Your task to perform on an android device: change keyboard looks Image 0: 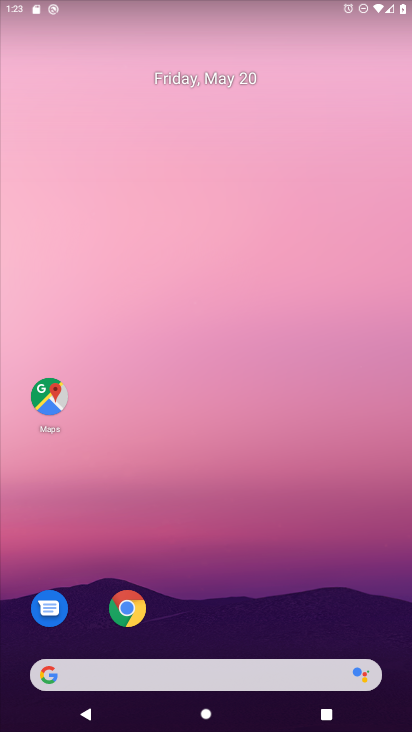
Step 0: press home button
Your task to perform on an android device: change keyboard looks Image 1: 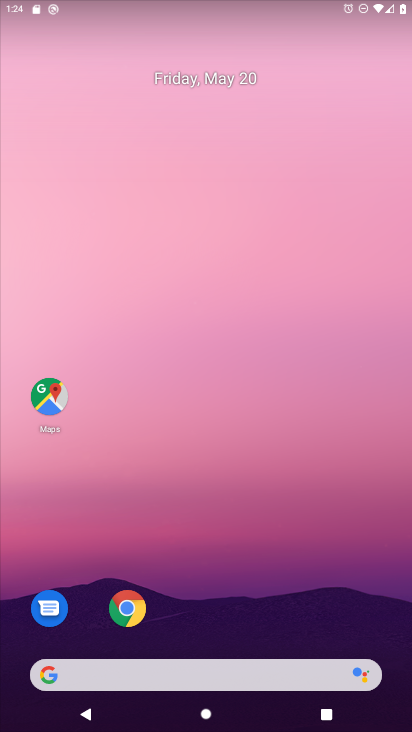
Step 1: drag from (316, 642) to (198, 68)
Your task to perform on an android device: change keyboard looks Image 2: 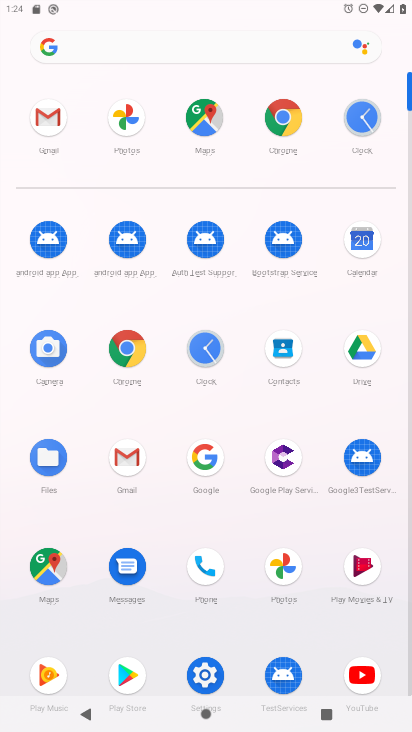
Step 2: click (205, 668)
Your task to perform on an android device: change keyboard looks Image 3: 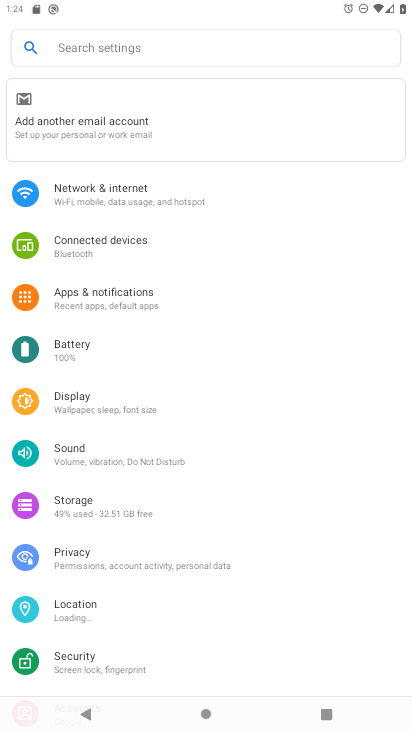
Step 3: drag from (203, 472) to (205, 136)
Your task to perform on an android device: change keyboard looks Image 4: 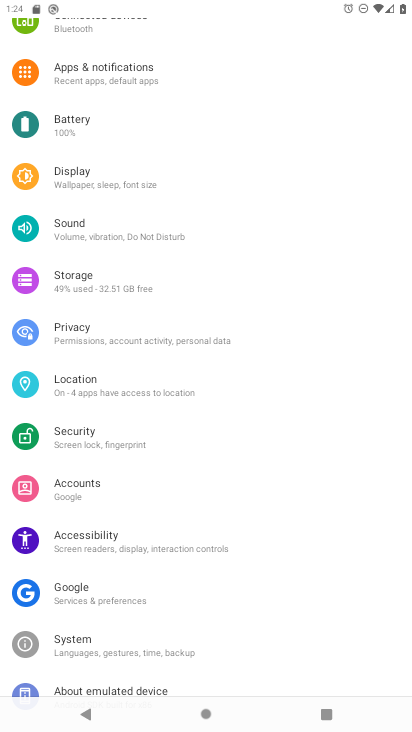
Step 4: drag from (159, 510) to (154, 412)
Your task to perform on an android device: change keyboard looks Image 5: 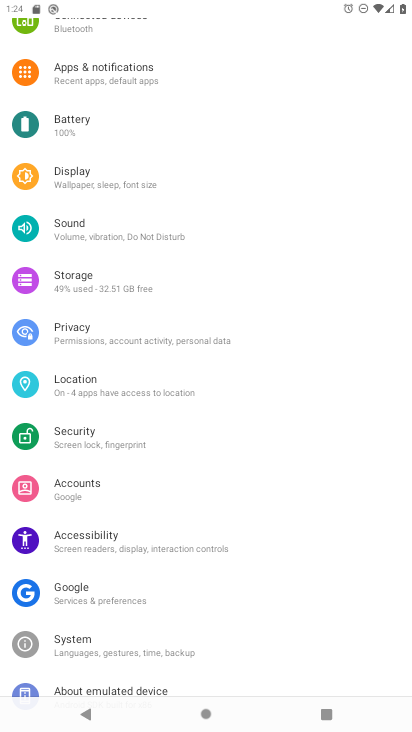
Step 5: drag from (164, 572) to (118, 144)
Your task to perform on an android device: change keyboard looks Image 6: 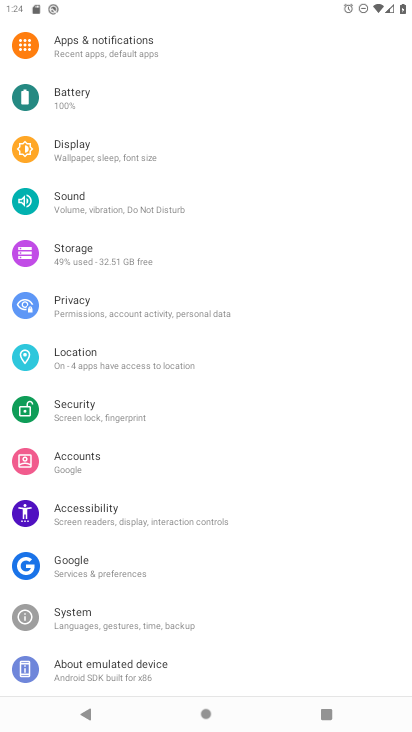
Step 6: click (99, 623)
Your task to perform on an android device: change keyboard looks Image 7: 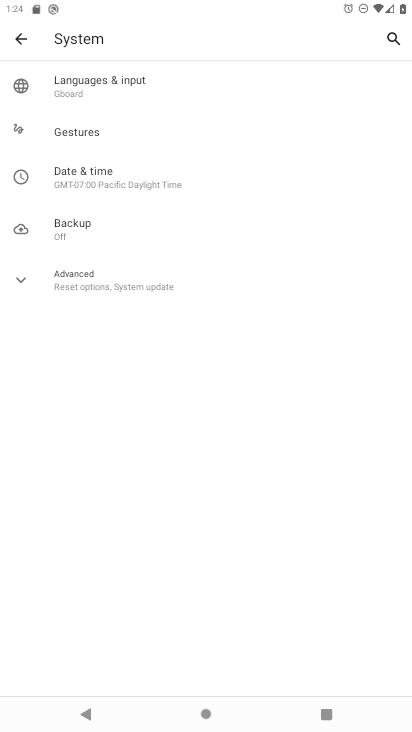
Step 7: click (61, 76)
Your task to perform on an android device: change keyboard looks Image 8: 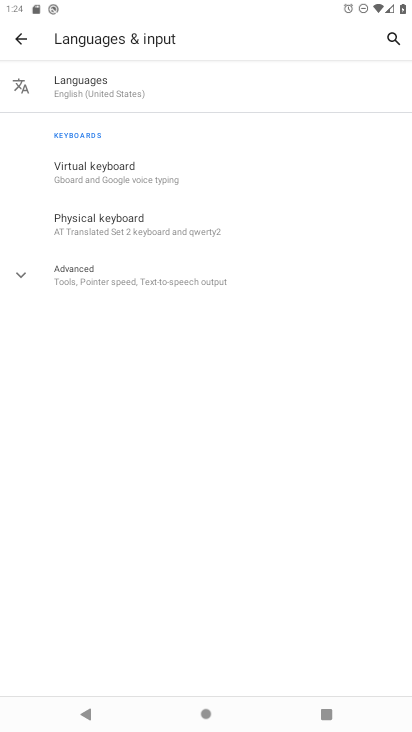
Step 8: click (92, 175)
Your task to perform on an android device: change keyboard looks Image 9: 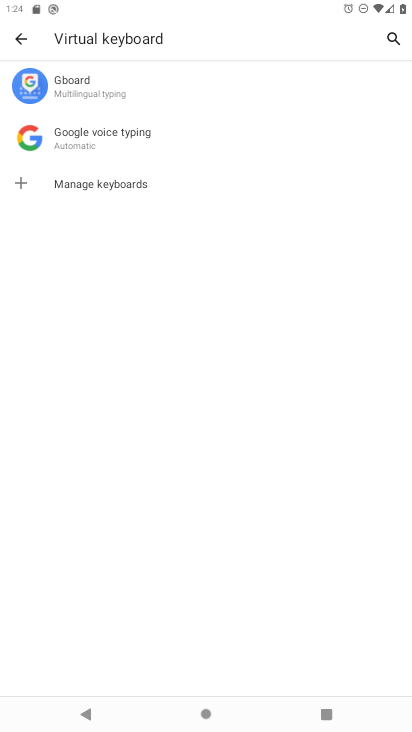
Step 9: click (74, 69)
Your task to perform on an android device: change keyboard looks Image 10: 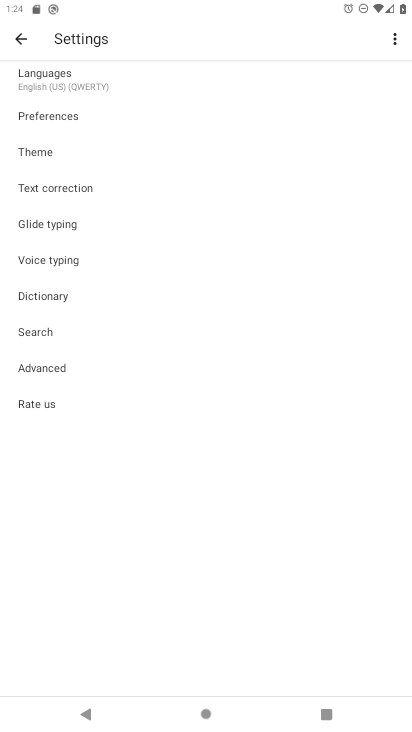
Step 10: click (71, 143)
Your task to perform on an android device: change keyboard looks Image 11: 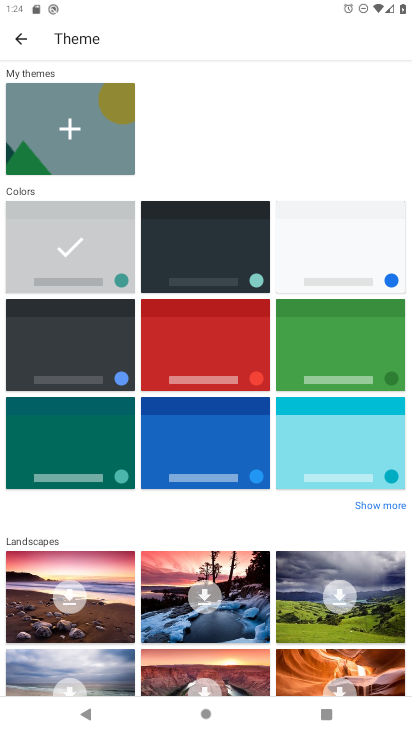
Step 11: click (106, 363)
Your task to perform on an android device: change keyboard looks Image 12: 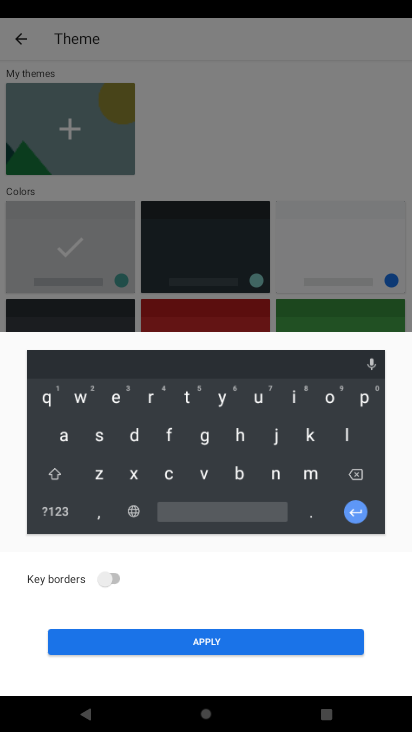
Step 12: click (108, 579)
Your task to perform on an android device: change keyboard looks Image 13: 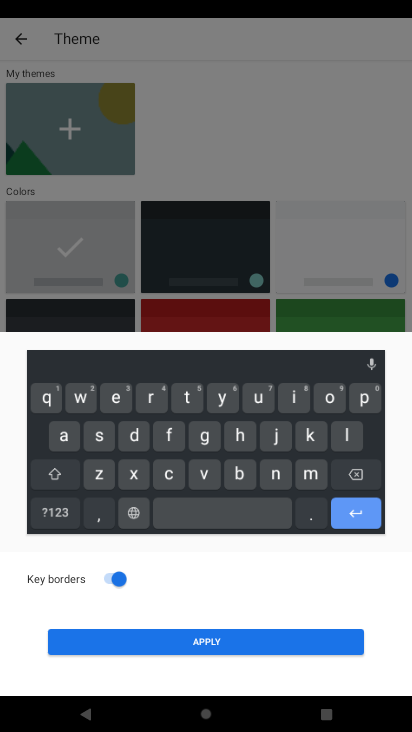
Step 13: click (138, 649)
Your task to perform on an android device: change keyboard looks Image 14: 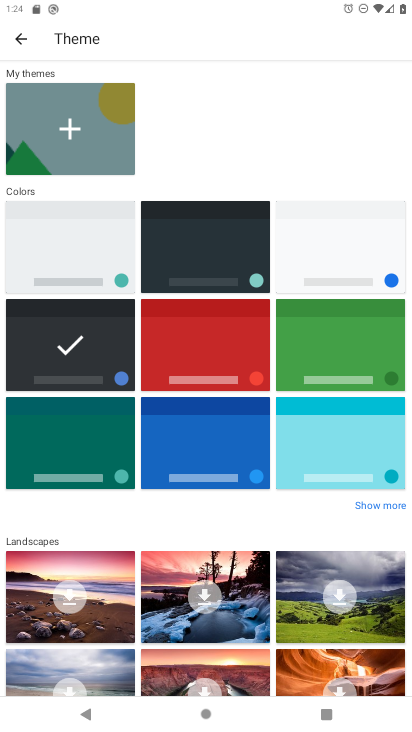
Step 14: task complete